Your task to perform on an android device: clear all cookies in the chrome app Image 0: 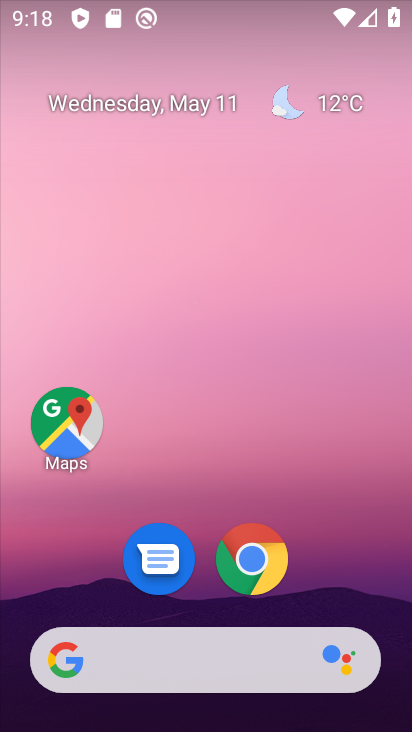
Step 0: click (249, 568)
Your task to perform on an android device: clear all cookies in the chrome app Image 1: 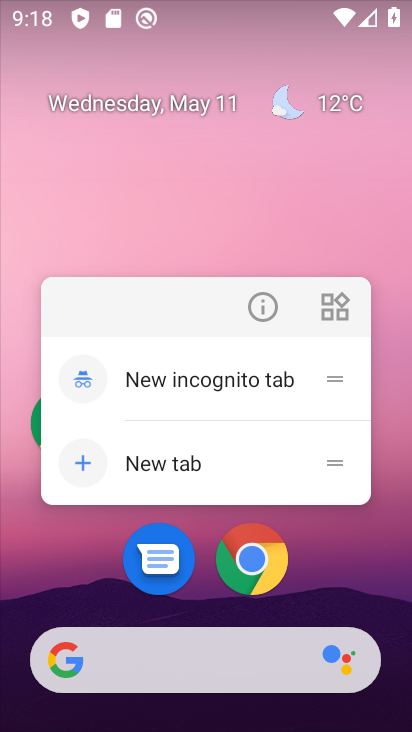
Step 1: click (255, 559)
Your task to perform on an android device: clear all cookies in the chrome app Image 2: 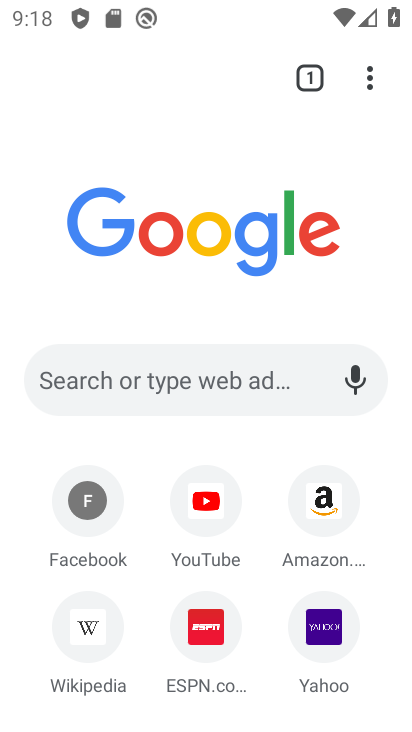
Step 2: drag from (367, 75) to (250, 637)
Your task to perform on an android device: clear all cookies in the chrome app Image 3: 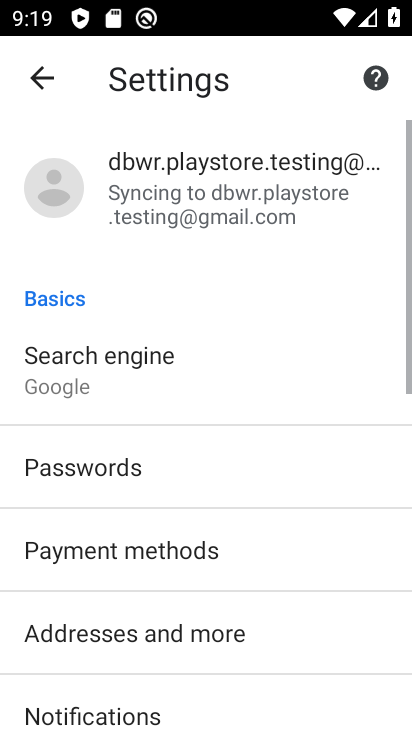
Step 3: drag from (141, 636) to (343, 236)
Your task to perform on an android device: clear all cookies in the chrome app Image 4: 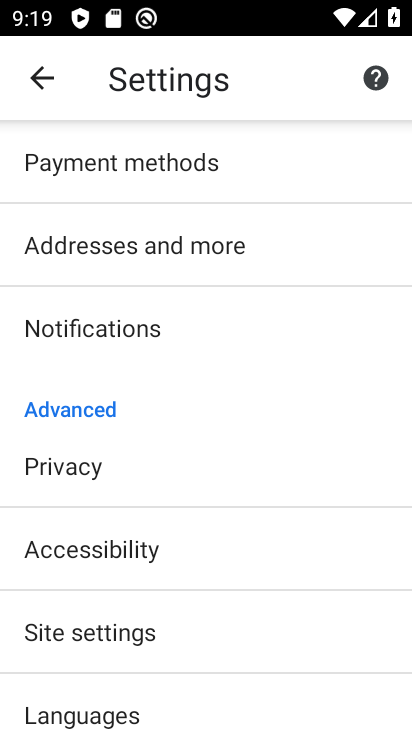
Step 4: click (176, 476)
Your task to perform on an android device: clear all cookies in the chrome app Image 5: 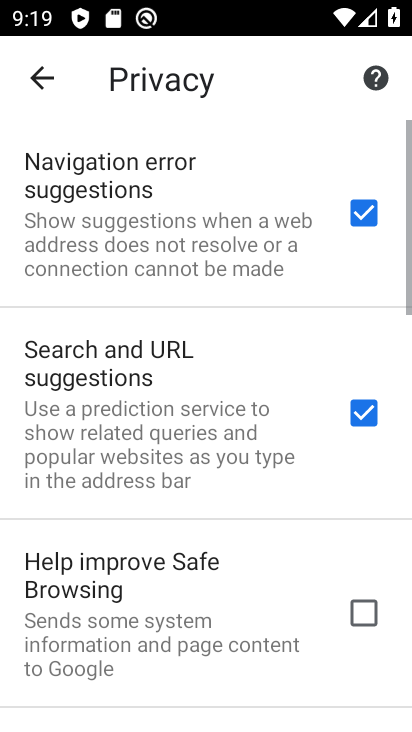
Step 5: drag from (165, 672) to (315, 207)
Your task to perform on an android device: clear all cookies in the chrome app Image 6: 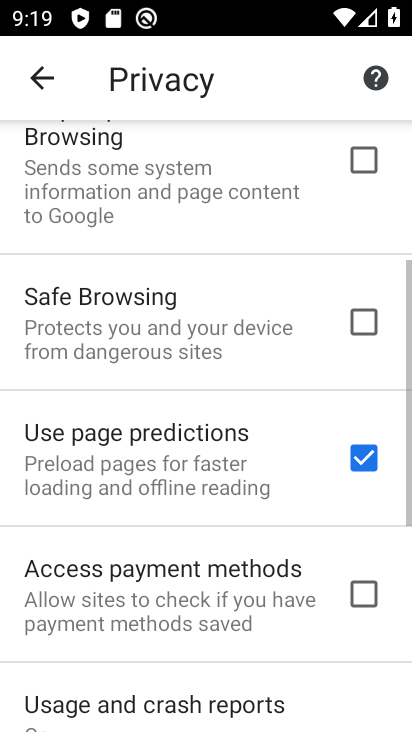
Step 6: drag from (173, 723) to (290, 294)
Your task to perform on an android device: clear all cookies in the chrome app Image 7: 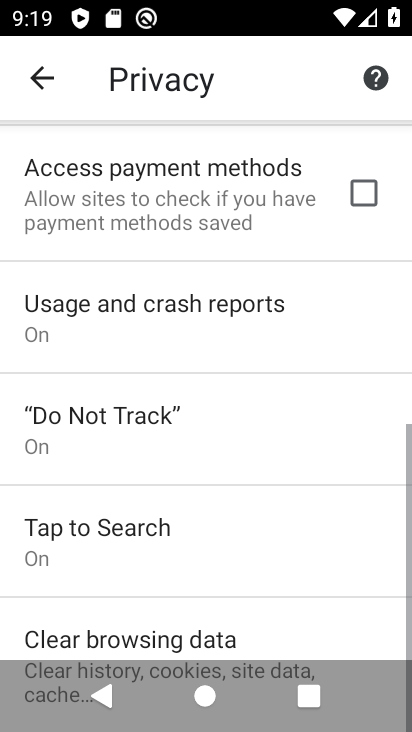
Step 7: click (175, 638)
Your task to perform on an android device: clear all cookies in the chrome app Image 8: 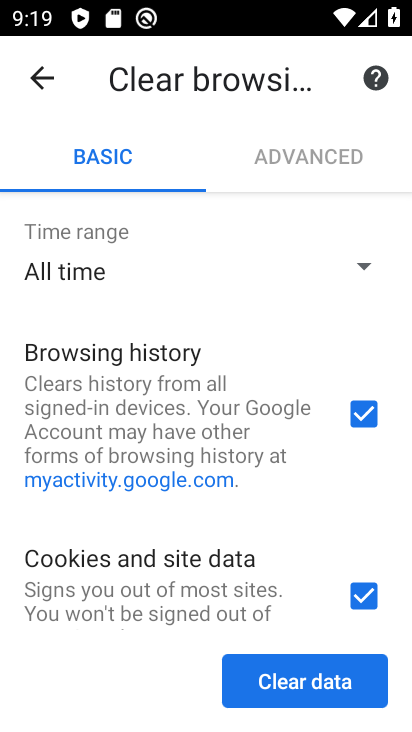
Step 8: click (361, 411)
Your task to perform on an android device: clear all cookies in the chrome app Image 9: 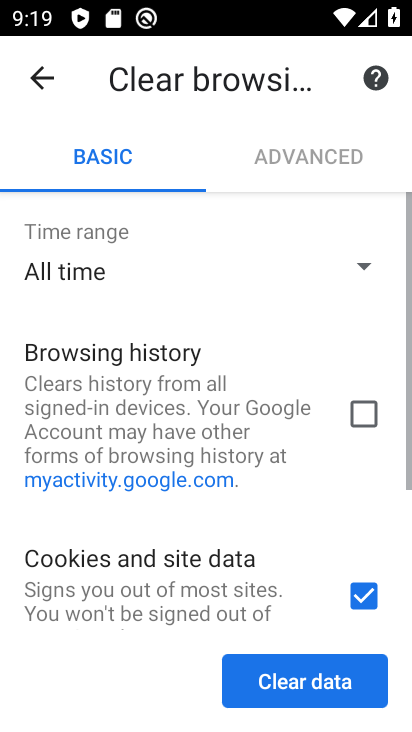
Step 9: drag from (66, 586) to (232, 238)
Your task to perform on an android device: clear all cookies in the chrome app Image 10: 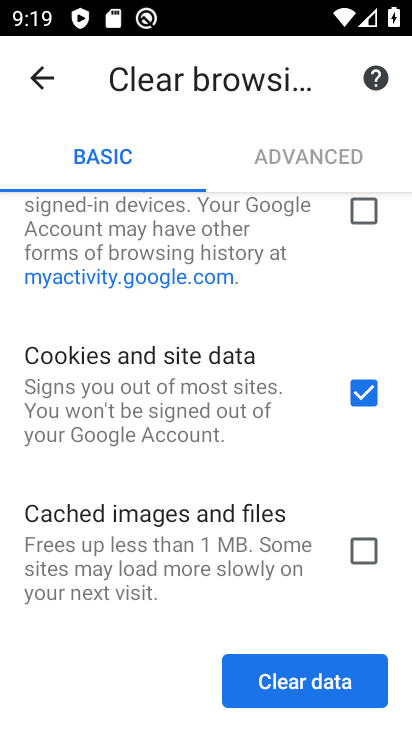
Step 10: click (298, 680)
Your task to perform on an android device: clear all cookies in the chrome app Image 11: 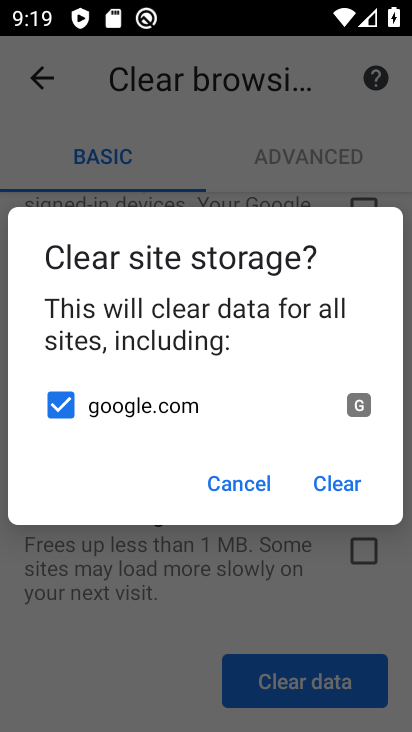
Step 11: click (350, 489)
Your task to perform on an android device: clear all cookies in the chrome app Image 12: 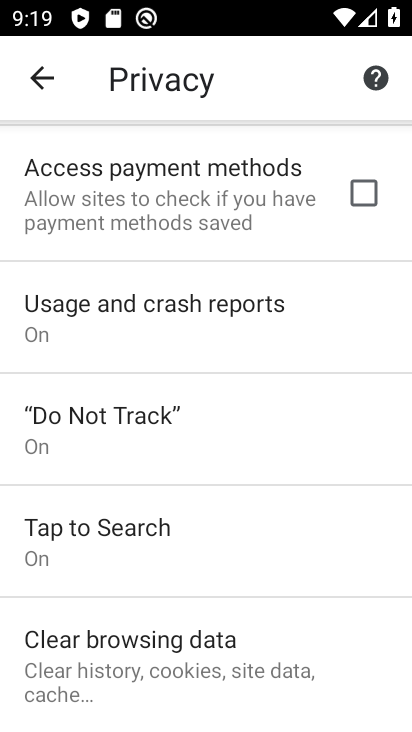
Step 12: task complete